Your task to perform on an android device: Open my contact list Image 0: 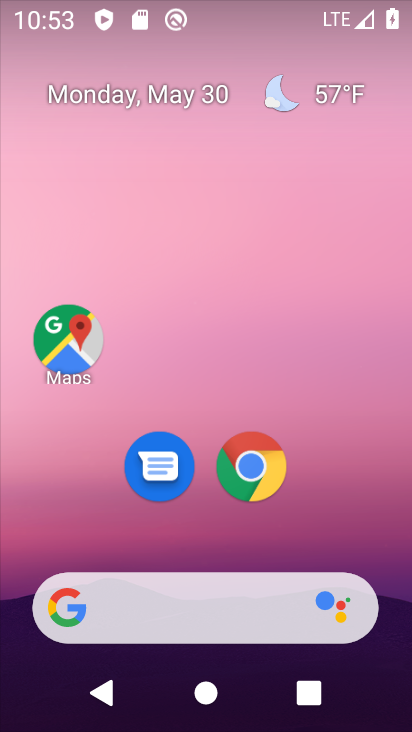
Step 0: drag from (327, 527) to (325, 182)
Your task to perform on an android device: Open my contact list Image 1: 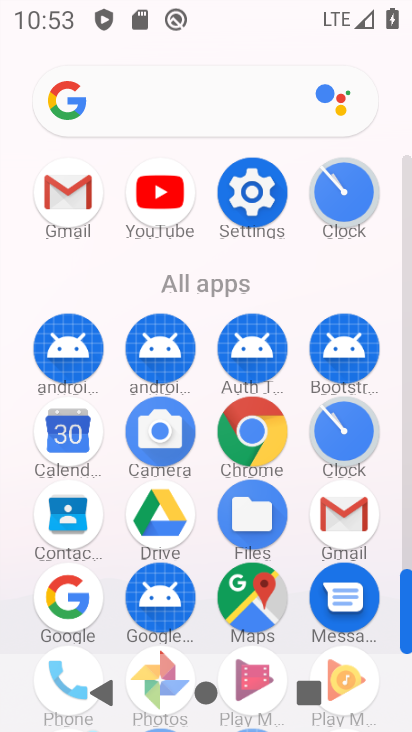
Step 1: click (59, 534)
Your task to perform on an android device: Open my contact list Image 2: 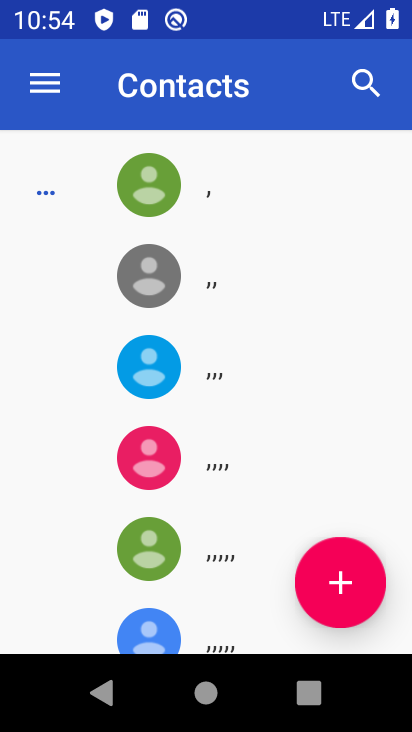
Step 2: task complete